Your task to perform on an android device: Go to accessibility settings Image 0: 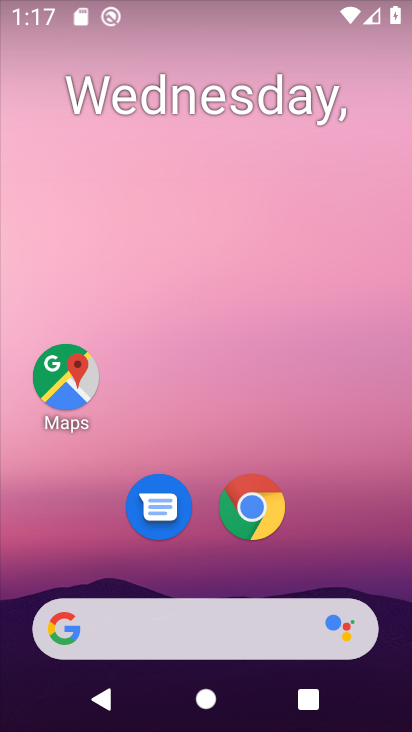
Step 0: drag from (80, 604) to (189, 111)
Your task to perform on an android device: Go to accessibility settings Image 1: 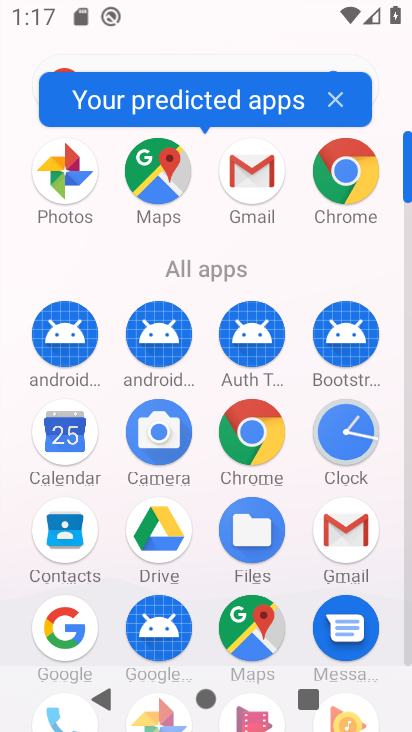
Step 1: drag from (158, 567) to (210, 356)
Your task to perform on an android device: Go to accessibility settings Image 2: 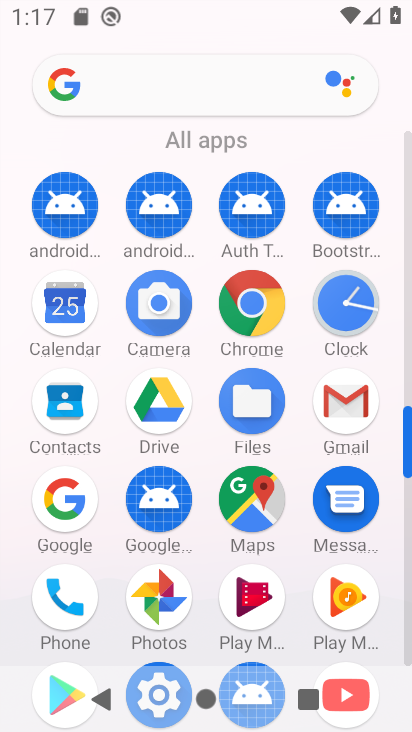
Step 2: click (155, 675)
Your task to perform on an android device: Go to accessibility settings Image 3: 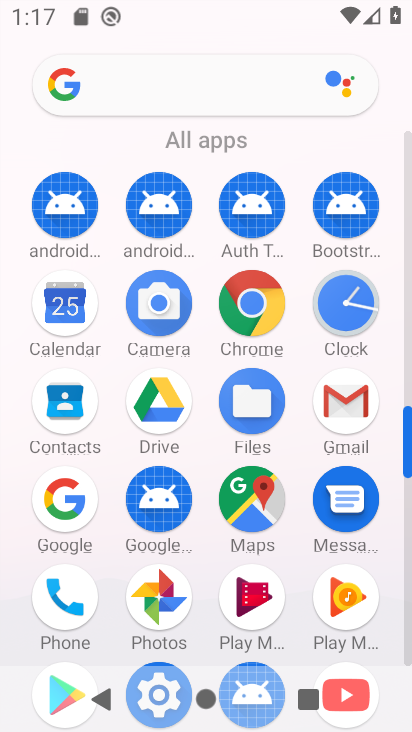
Step 3: drag from (196, 599) to (237, 317)
Your task to perform on an android device: Go to accessibility settings Image 4: 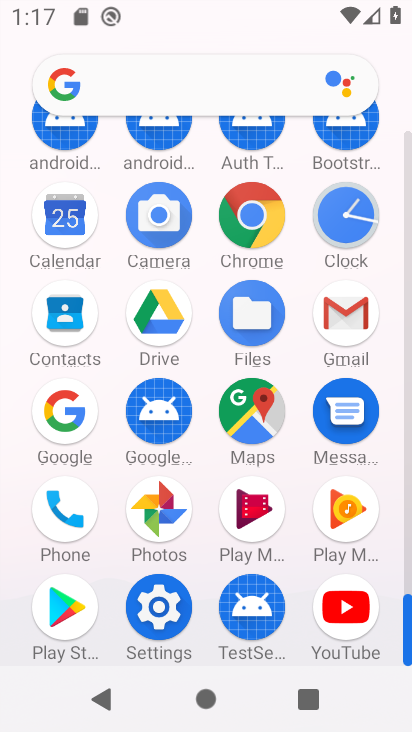
Step 4: click (159, 623)
Your task to perform on an android device: Go to accessibility settings Image 5: 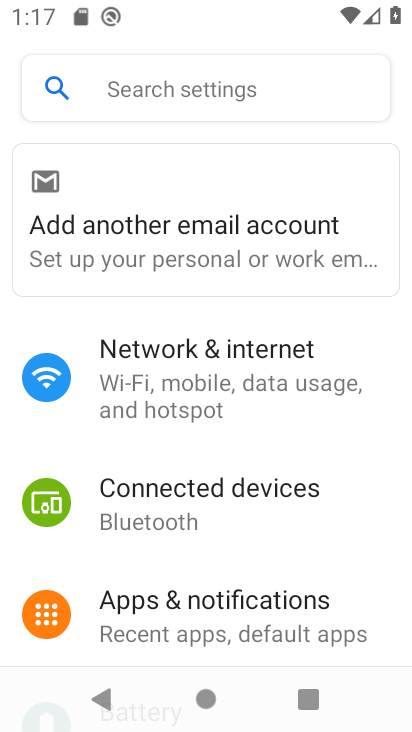
Step 5: drag from (4, 553) to (210, 178)
Your task to perform on an android device: Go to accessibility settings Image 6: 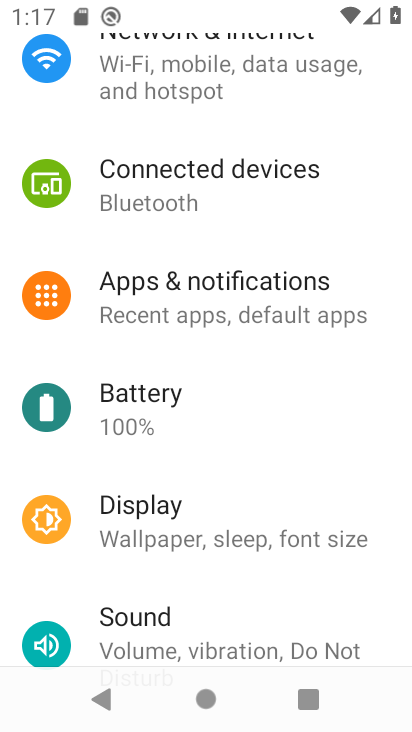
Step 6: drag from (135, 545) to (236, 177)
Your task to perform on an android device: Go to accessibility settings Image 7: 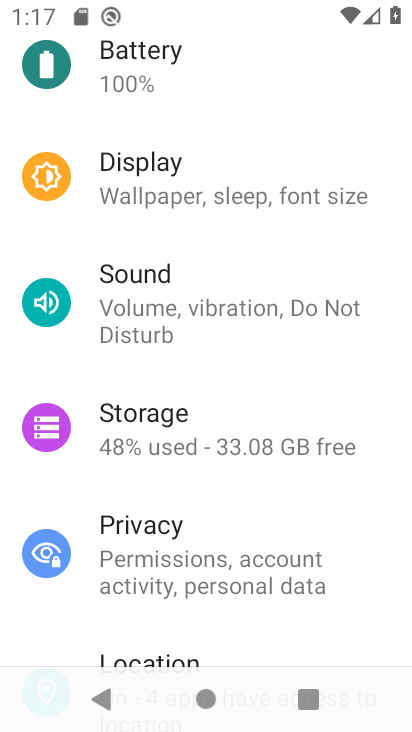
Step 7: drag from (189, 448) to (266, 172)
Your task to perform on an android device: Go to accessibility settings Image 8: 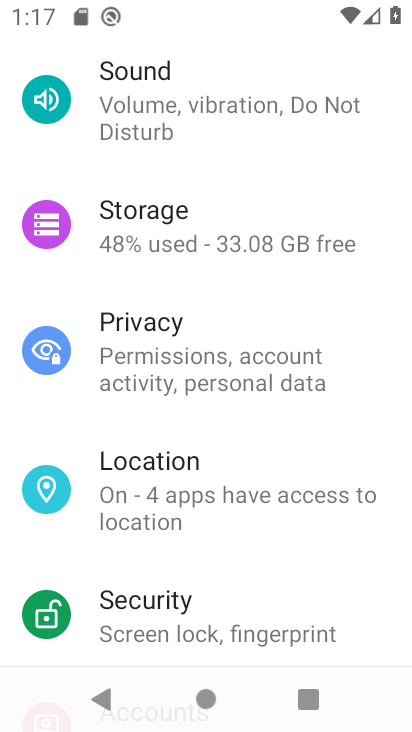
Step 8: drag from (160, 628) to (260, 222)
Your task to perform on an android device: Go to accessibility settings Image 9: 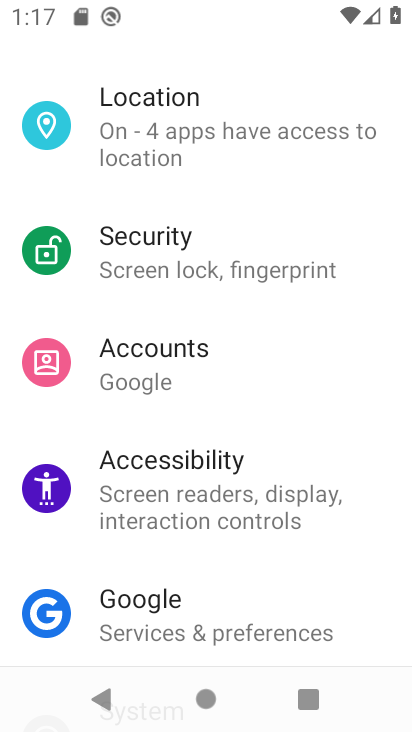
Step 9: click (226, 487)
Your task to perform on an android device: Go to accessibility settings Image 10: 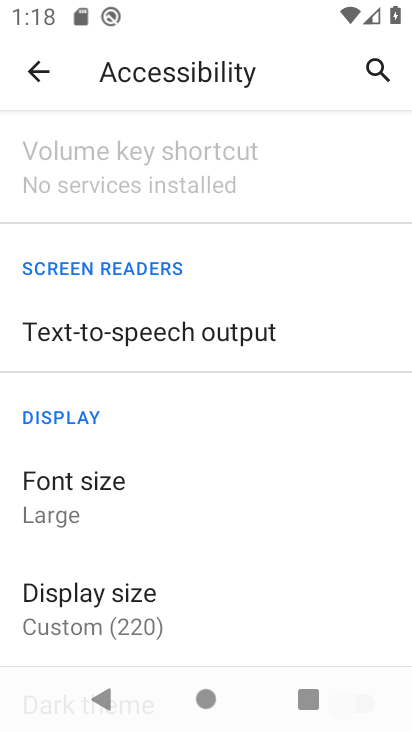
Step 10: task complete